Your task to perform on an android device: set an alarm Image 0: 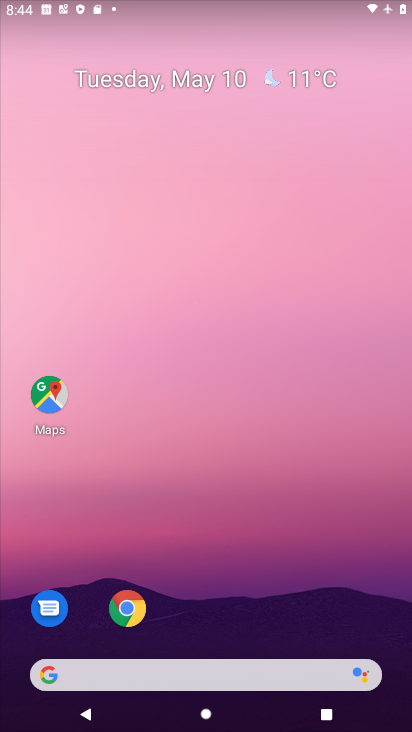
Step 0: press home button
Your task to perform on an android device: set an alarm Image 1: 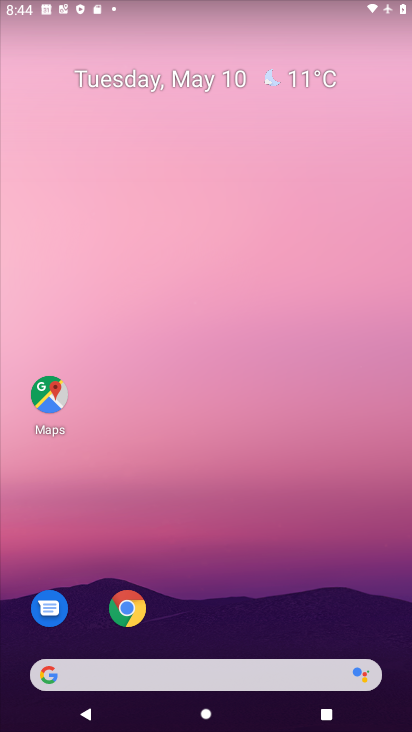
Step 1: drag from (208, 671) to (326, 369)
Your task to perform on an android device: set an alarm Image 2: 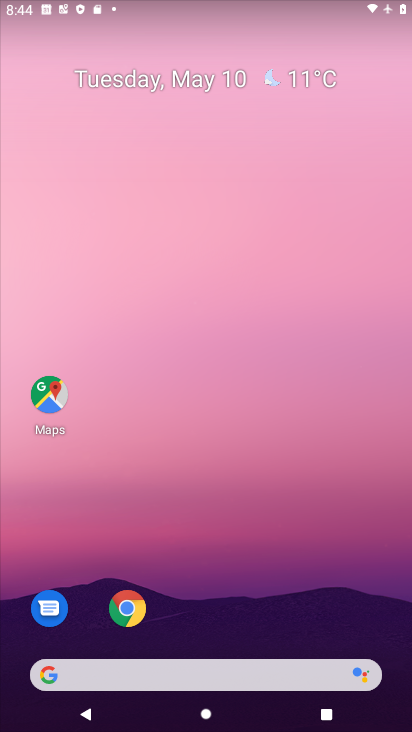
Step 2: drag from (189, 672) to (268, 278)
Your task to perform on an android device: set an alarm Image 3: 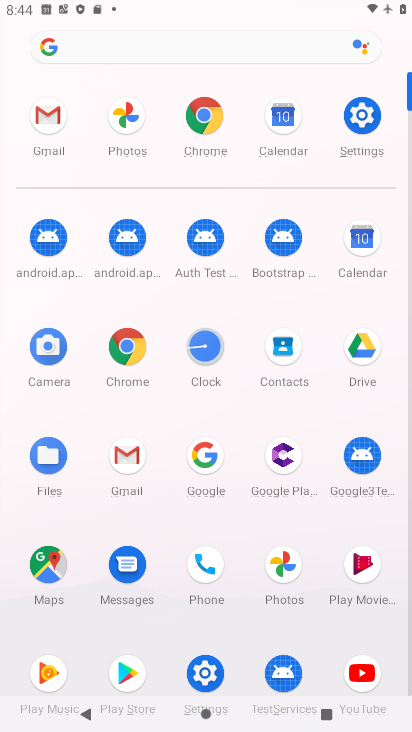
Step 3: click (202, 349)
Your task to perform on an android device: set an alarm Image 4: 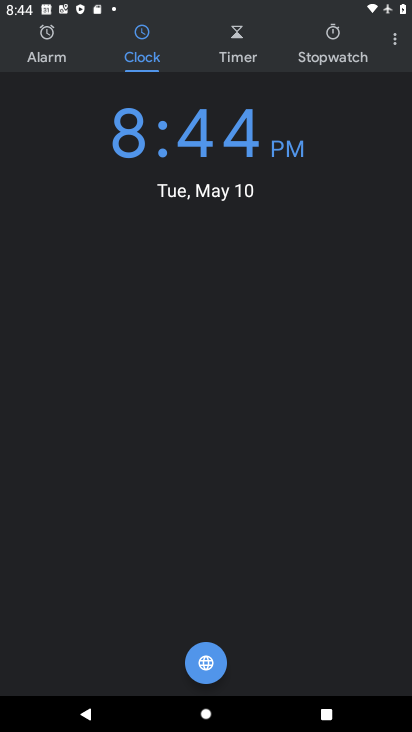
Step 4: click (36, 62)
Your task to perform on an android device: set an alarm Image 5: 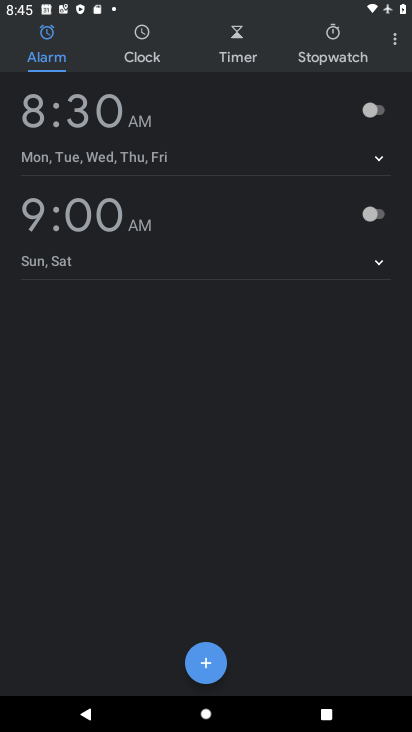
Step 5: click (114, 134)
Your task to perform on an android device: set an alarm Image 6: 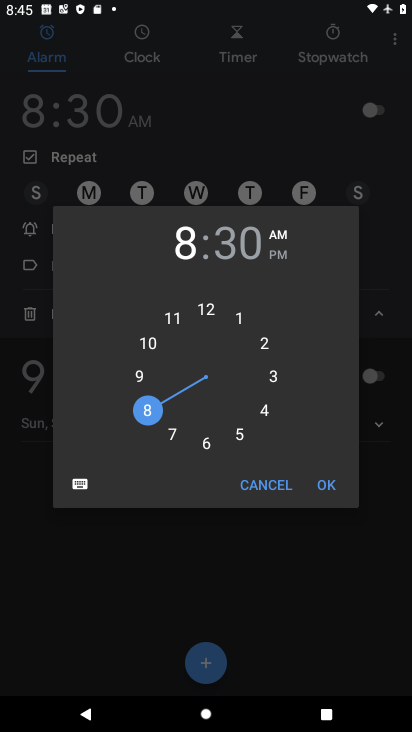
Step 6: click (142, 334)
Your task to perform on an android device: set an alarm Image 7: 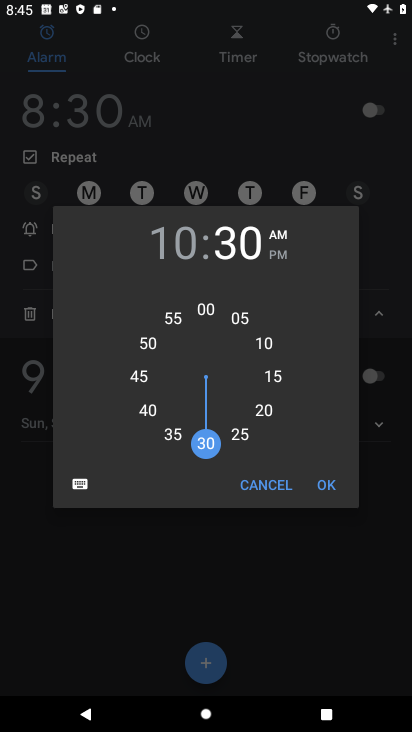
Step 7: click (141, 373)
Your task to perform on an android device: set an alarm Image 8: 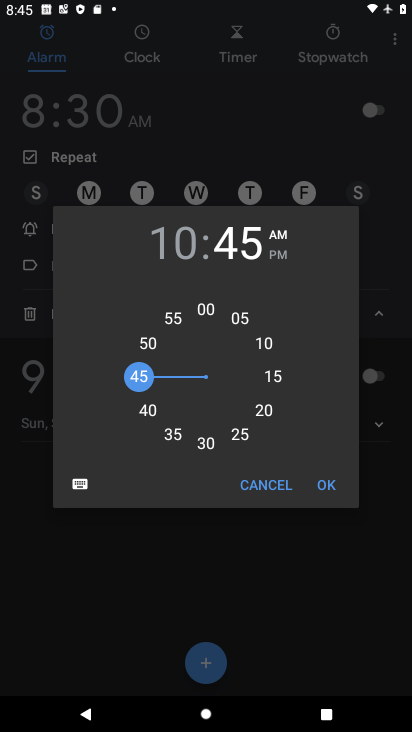
Step 8: click (330, 487)
Your task to perform on an android device: set an alarm Image 9: 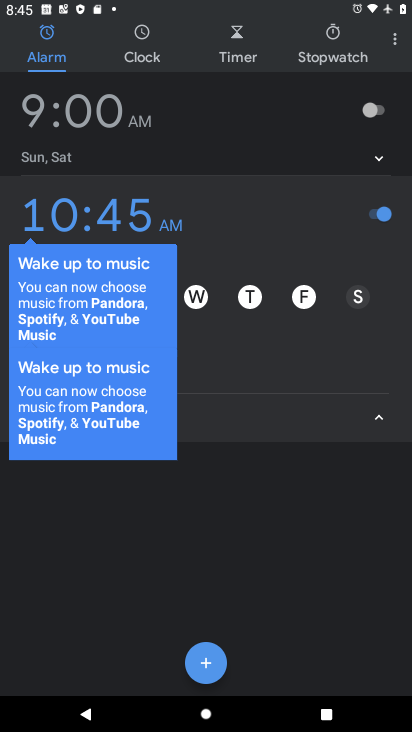
Step 9: task complete